Your task to perform on an android device: change the upload size in google photos Image 0: 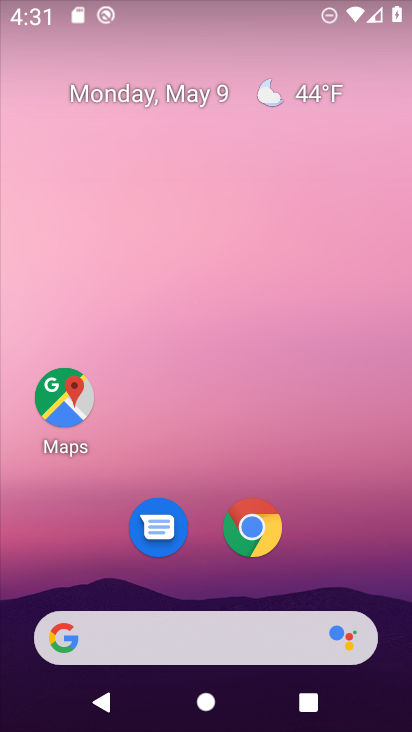
Step 0: drag from (201, 587) to (255, 0)
Your task to perform on an android device: change the upload size in google photos Image 1: 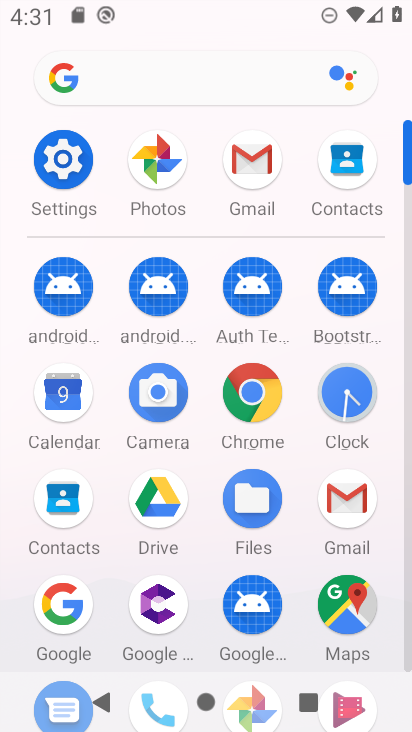
Step 1: click (174, 164)
Your task to perform on an android device: change the upload size in google photos Image 2: 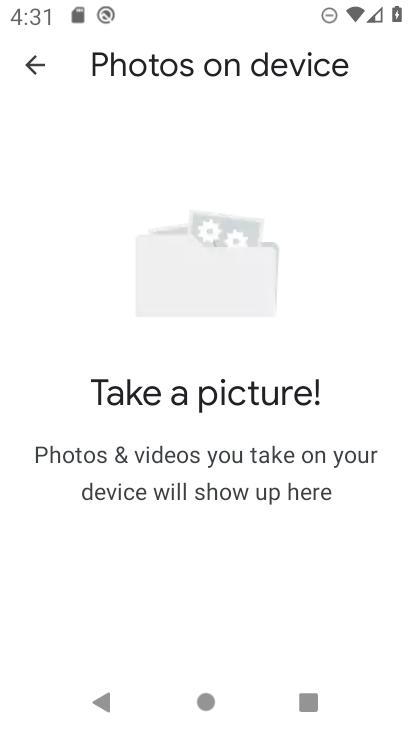
Step 2: click (48, 77)
Your task to perform on an android device: change the upload size in google photos Image 3: 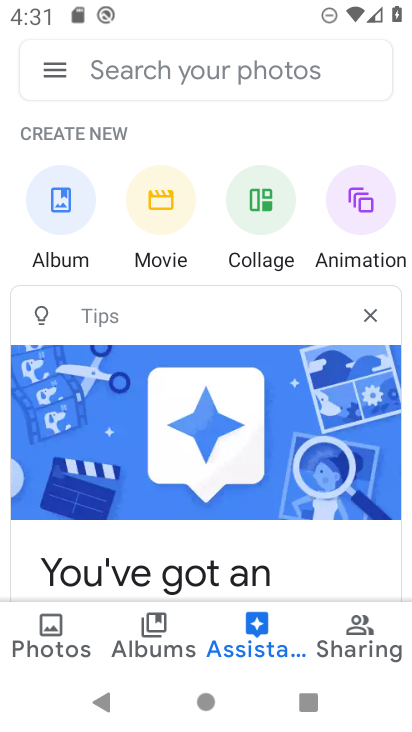
Step 3: click (48, 77)
Your task to perform on an android device: change the upload size in google photos Image 4: 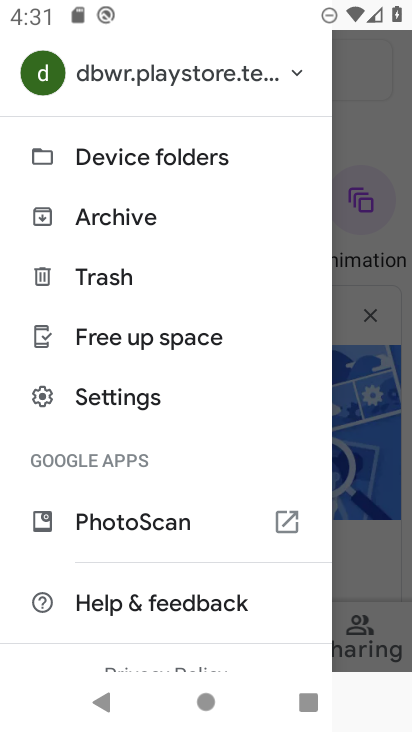
Step 4: click (111, 415)
Your task to perform on an android device: change the upload size in google photos Image 5: 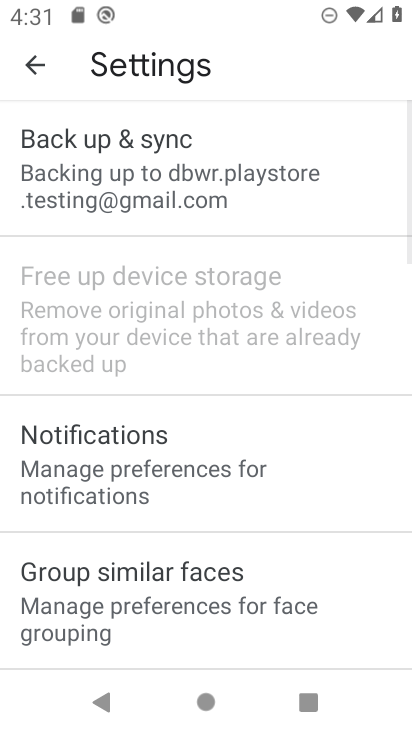
Step 5: click (329, 133)
Your task to perform on an android device: change the upload size in google photos Image 6: 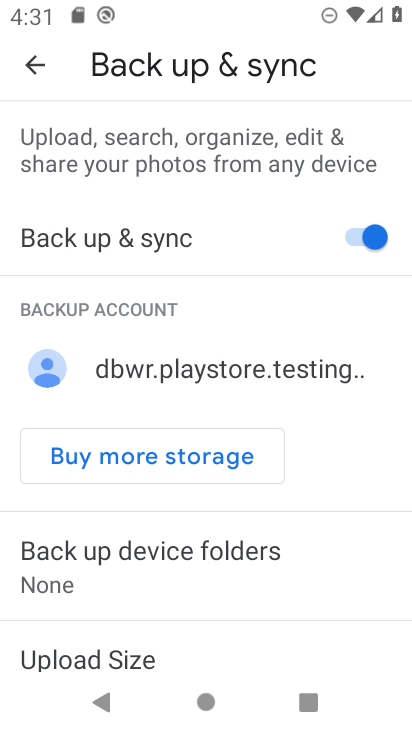
Step 6: click (72, 663)
Your task to perform on an android device: change the upload size in google photos Image 7: 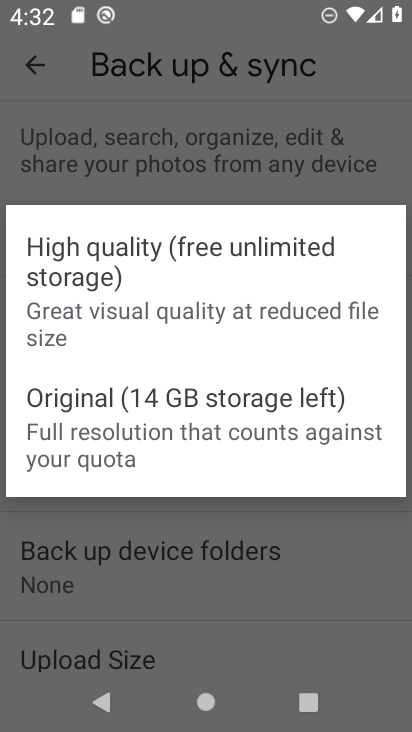
Step 7: click (361, 376)
Your task to perform on an android device: change the upload size in google photos Image 8: 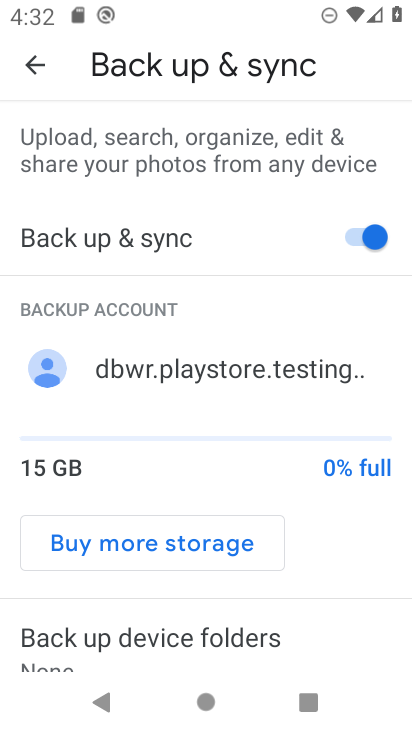
Step 8: task complete